Your task to perform on an android device: Open sound settings Image 0: 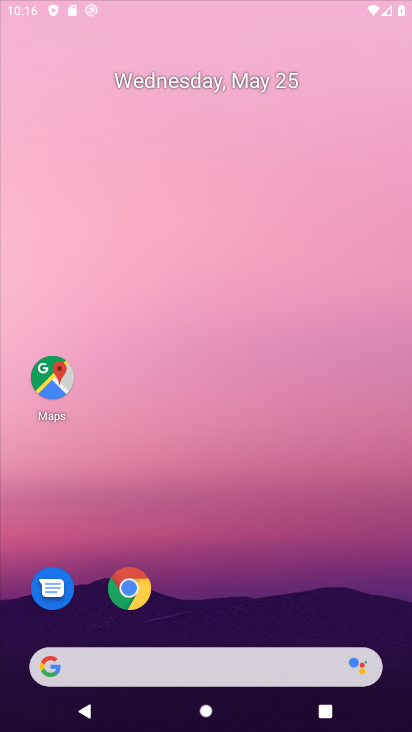
Step 0: press home button
Your task to perform on an android device: Open sound settings Image 1: 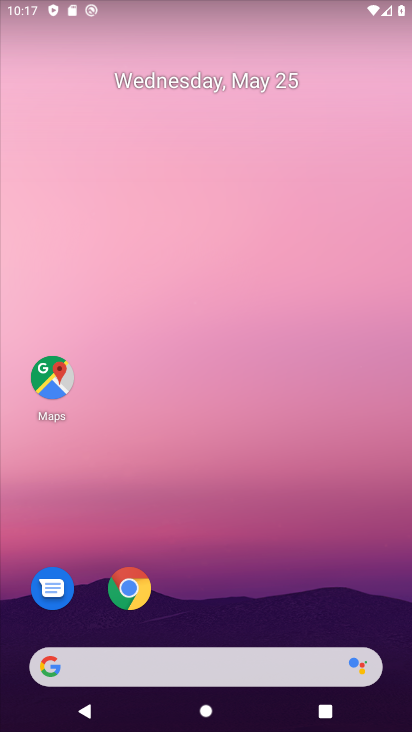
Step 1: drag from (282, 411) to (284, 160)
Your task to perform on an android device: Open sound settings Image 2: 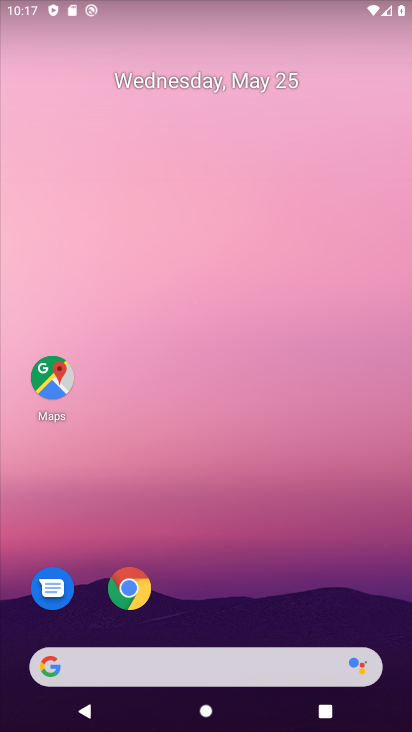
Step 2: drag from (287, 550) to (297, 121)
Your task to perform on an android device: Open sound settings Image 3: 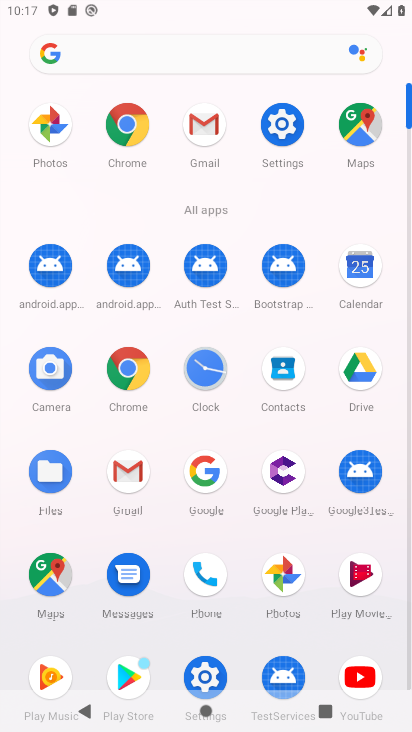
Step 3: click (274, 120)
Your task to perform on an android device: Open sound settings Image 4: 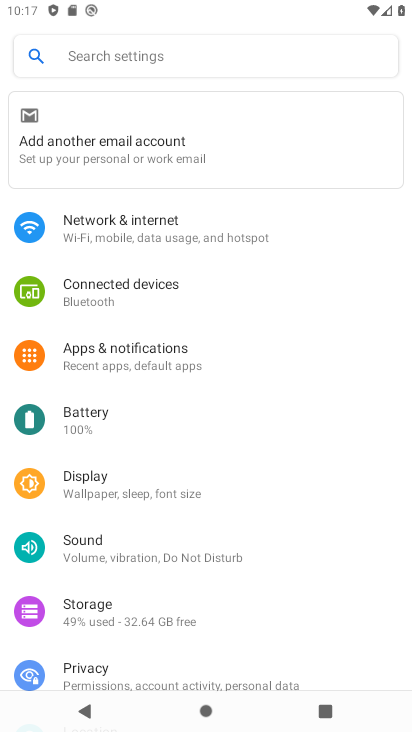
Step 4: click (135, 551)
Your task to perform on an android device: Open sound settings Image 5: 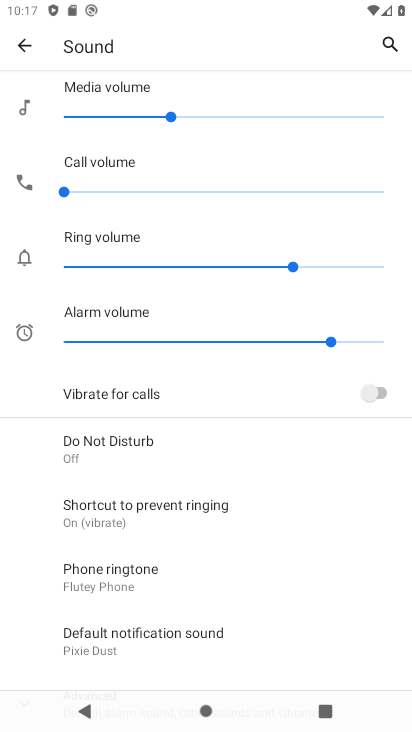
Step 5: task complete